Your task to perform on an android device: Do I have any events this weekend? Image 0: 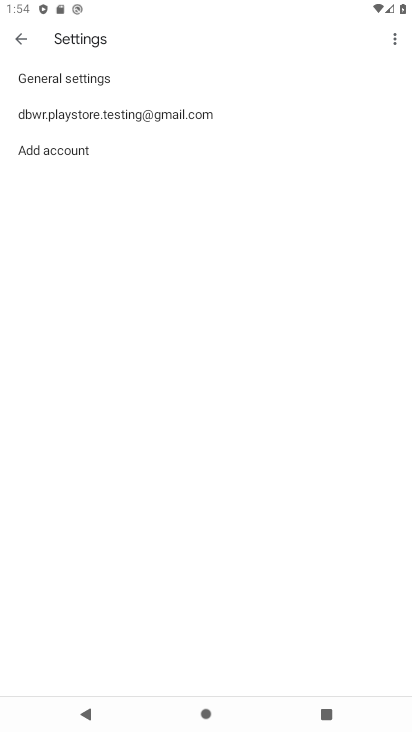
Step 0: press home button
Your task to perform on an android device: Do I have any events this weekend? Image 1: 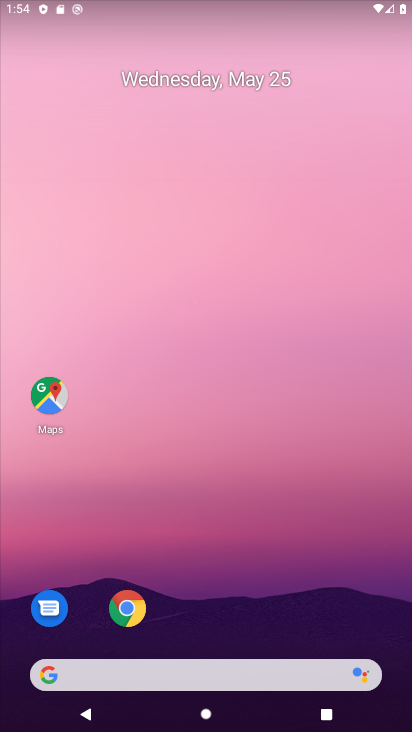
Step 1: drag from (221, 677) to (289, 292)
Your task to perform on an android device: Do I have any events this weekend? Image 2: 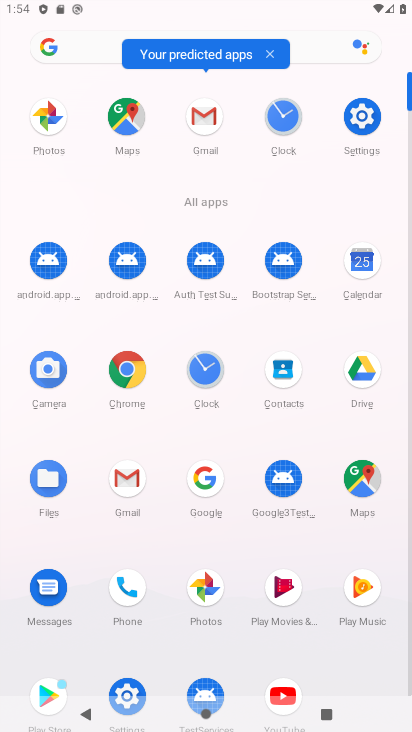
Step 2: click (356, 285)
Your task to perform on an android device: Do I have any events this weekend? Image 3: 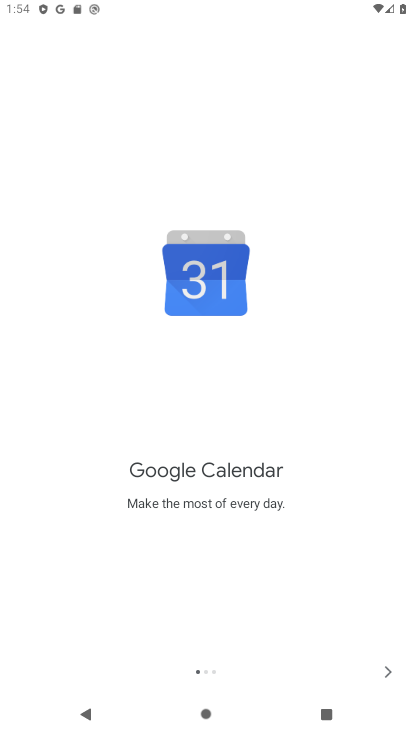
Step 3: click (383, 669)
Your task to perform on an android device: Do I have any events this weekend? Image 4: 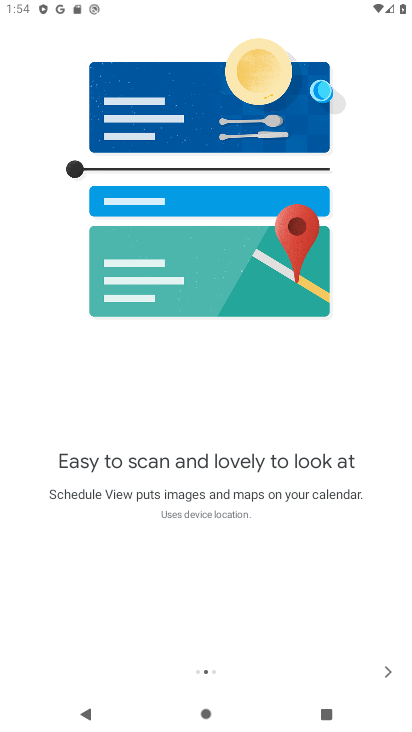
Step 4: click (383, 669)
Your task to perform on an android device: Do I have any events this weekend? Image 5: 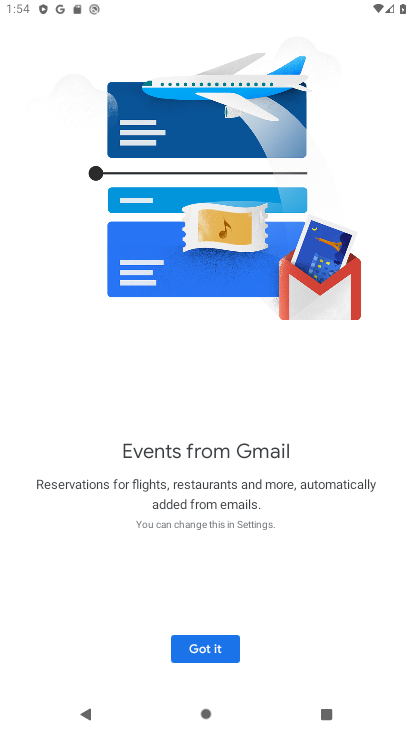
Step 5: click (233, 659)
Your task to perform on an android device: Do I have any events this weekend? Image 6: 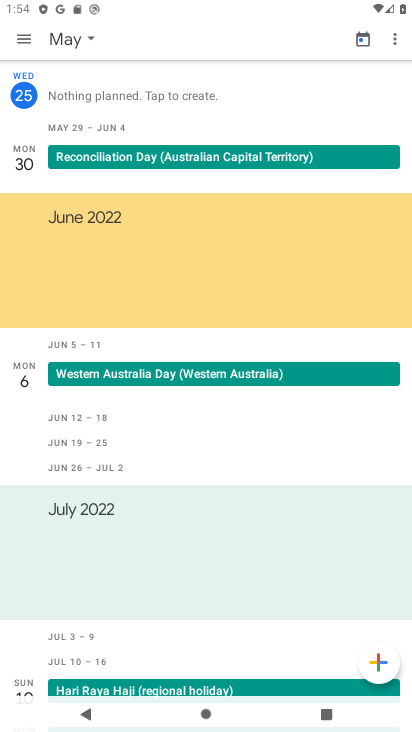
Step 6: task complete